Your task to perform on an android device: choose inbox layout in the gmail app Image 0: 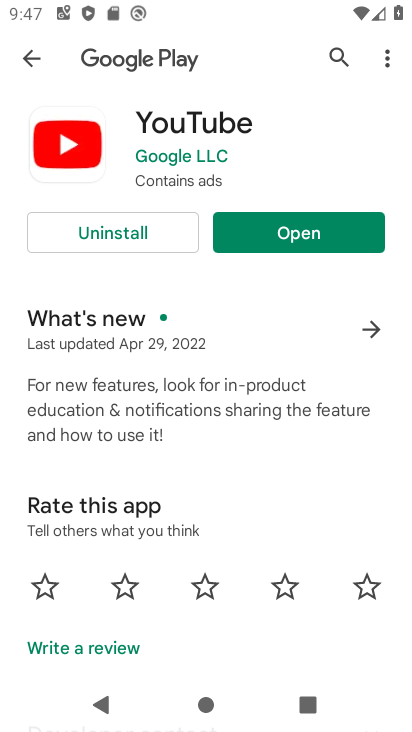
Step 0: press home button
Your task to perform on an android device: choose inbox layout in the gmail app Image 1: 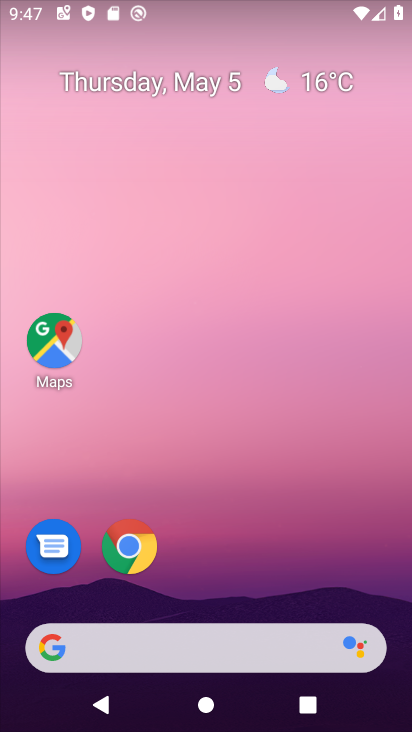
Step 1: drag from (268, 560) to (253, 142)
Your task to perform on an android device: choose inbox layout in the gmail app Image 2: 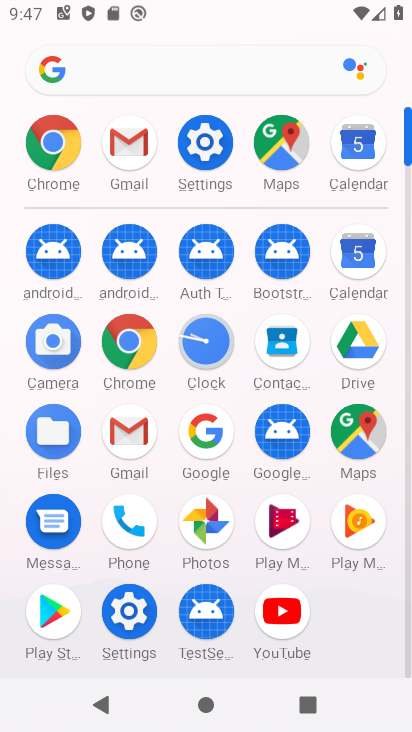
Step 2: click (126, 157)
Your task to perform on an android device: choose inbox layout in the gmail app Image 3: 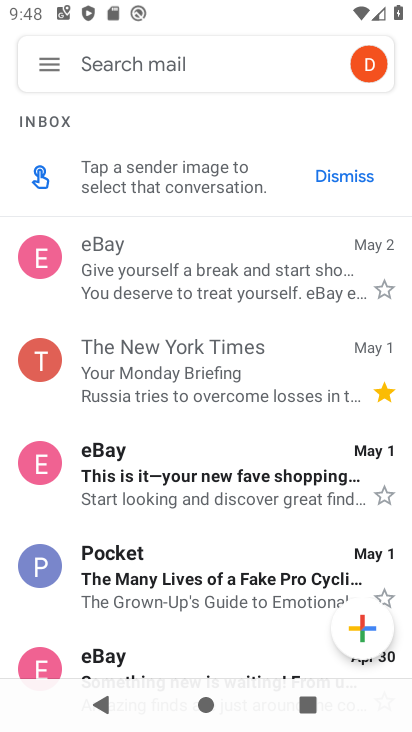
Step 3: click (50, 67)
Your task to perform on an android device: choose inbox layout in the gmail app Image 4: 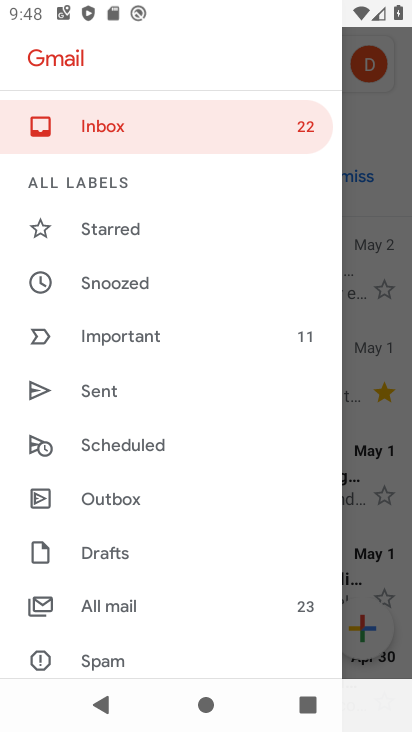
Step 4: drag from (137, 577) to (162, 350)
Your task to perform on an android device: choose inbox layout in the gmail app Image 5: 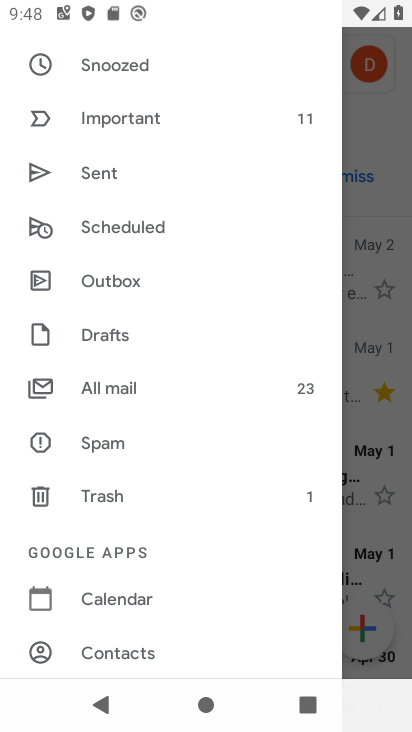
Step 5: drag from (125, 628) to (159, 434)
Your task to perform on an android device: choose inbox layout in the gmail app Image 6: 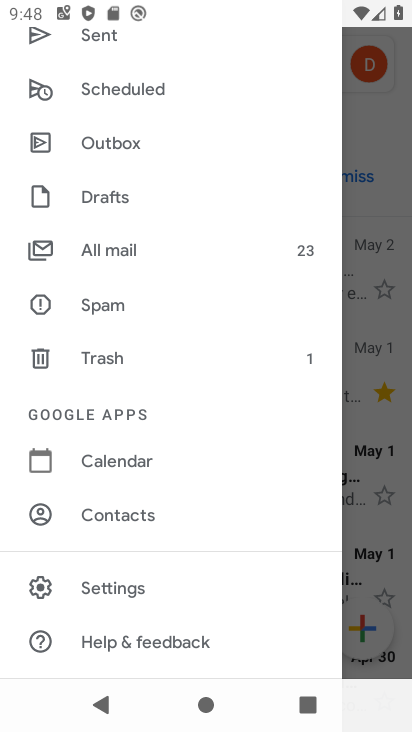
Step 6: click (119, 577)
Your task to perform on an android device: choose inbox layout in the gmail app Image 7: 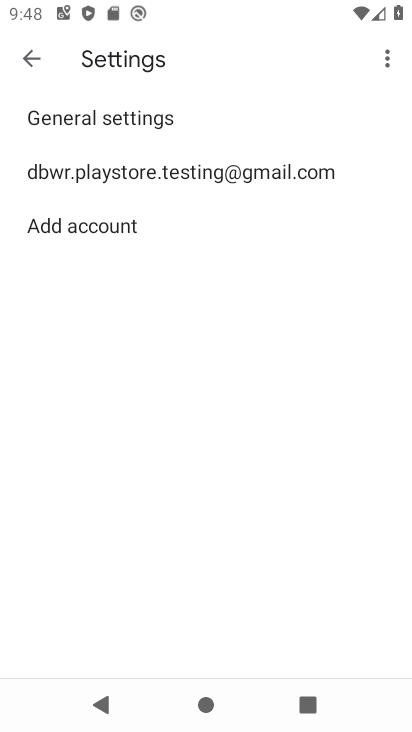
Step 7: click (213, 176)
Your task to perform on an android device: choose inbox layout in the gmail app Image 8: 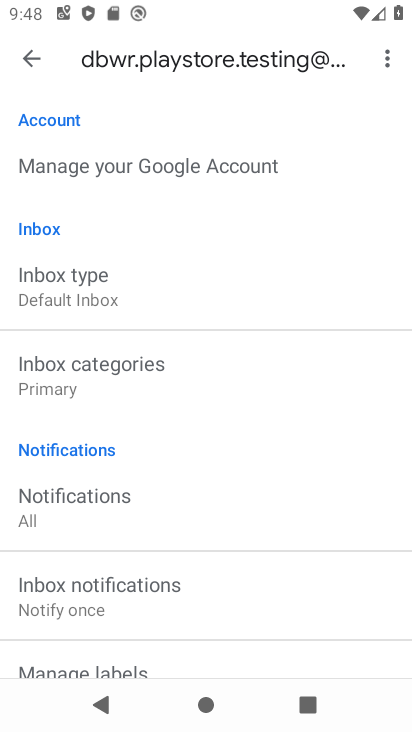
Step 8: click (117, 289)
Your task to perform on an android device: choose inbox layout in the gmail app Image 9: 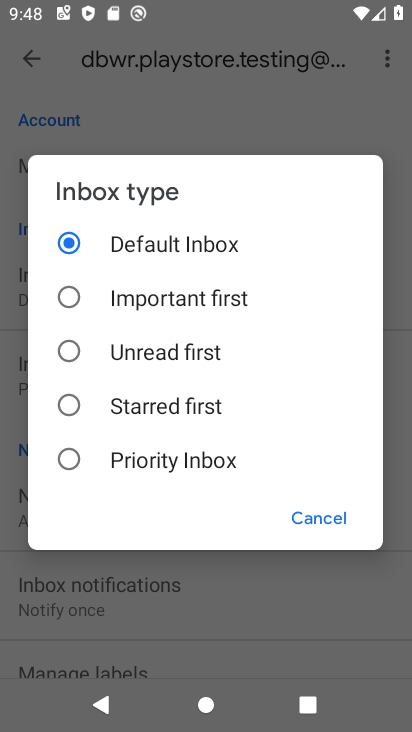
Step 9: click (117, 289)
Your task to perform on an android device: choose inbox layout in the gmail app Image 10: 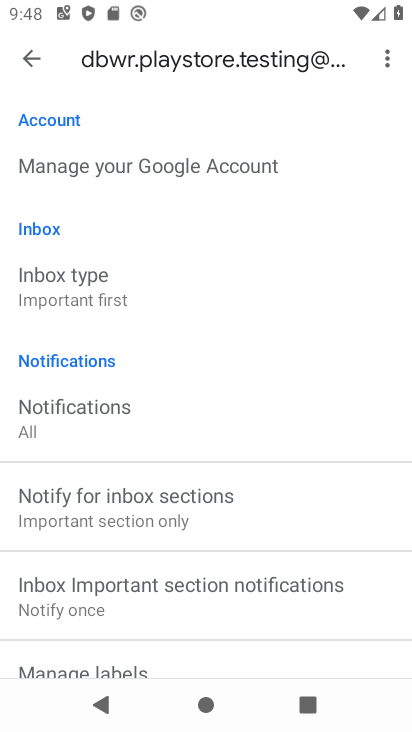
Step 10: task complete